Your task to perform on an android device: Open the web browser Image 0: 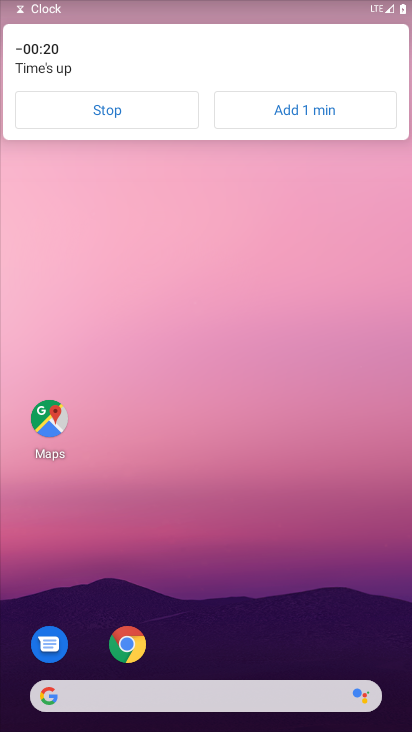
Step 0: click (131, 114)
Your task to perform on an android device: Open the web browser Image 1: 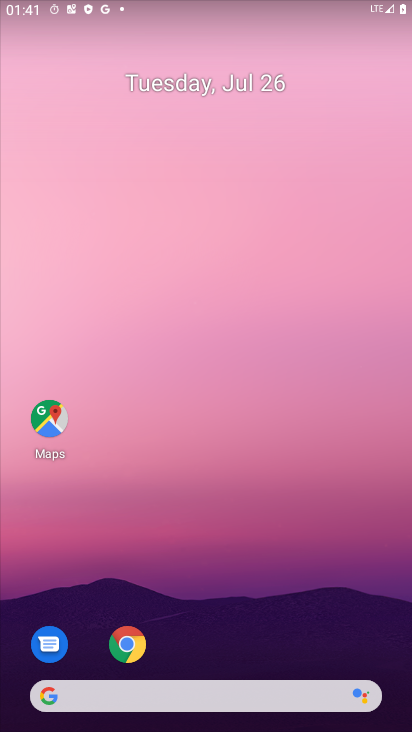
Step 1: click (129, 650)
Your task to perform on an android device: Open the web browser Image 2: 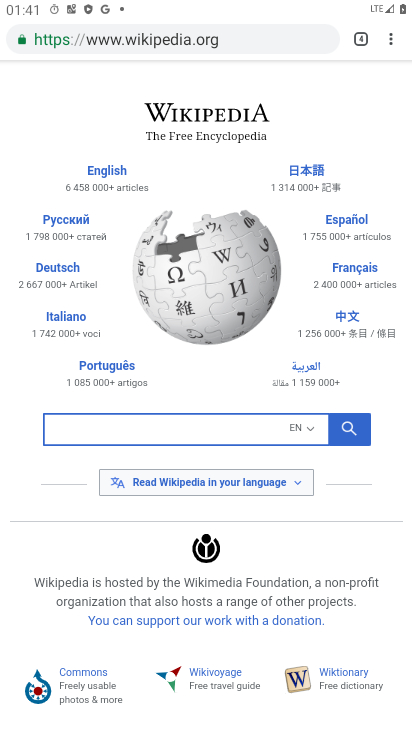
Step 2: task complete